Your task to perform on an android device: change the clock display to analog Image 0: 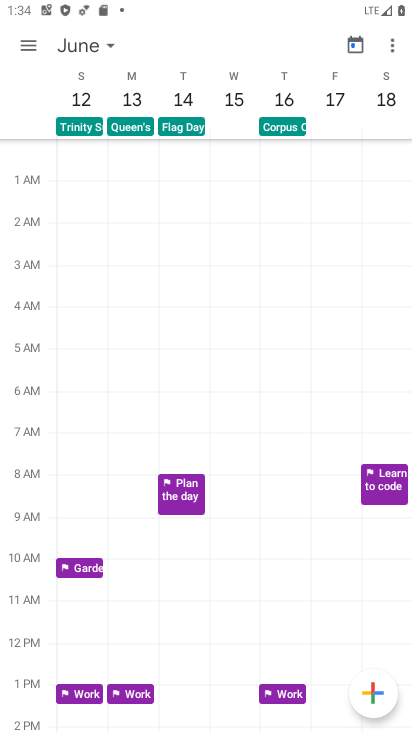
Step 0: press home button
Your task to perform on an android device: change the clock display to analog Image 1: 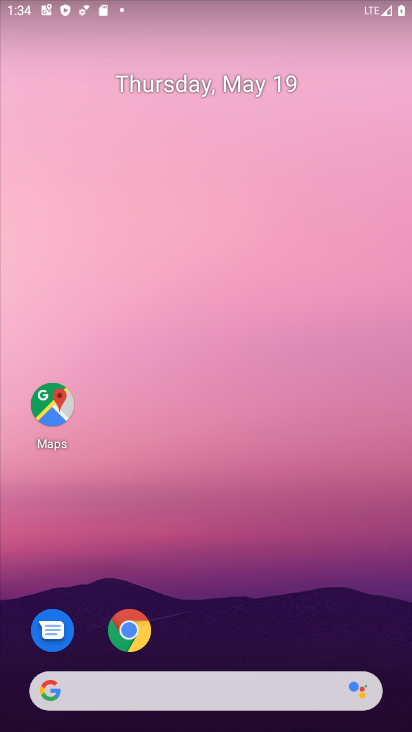
Step 1: drag from (213, 669) to (133, 26)
Your task to perform on an android device: change the clock display to analog Image 2: 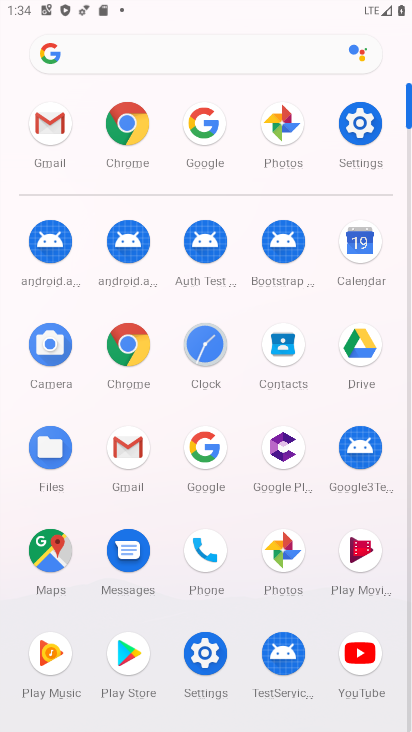
Step 2: click (194, 346)
Your task to perform on an android device: change the clock display to analog Image 3: 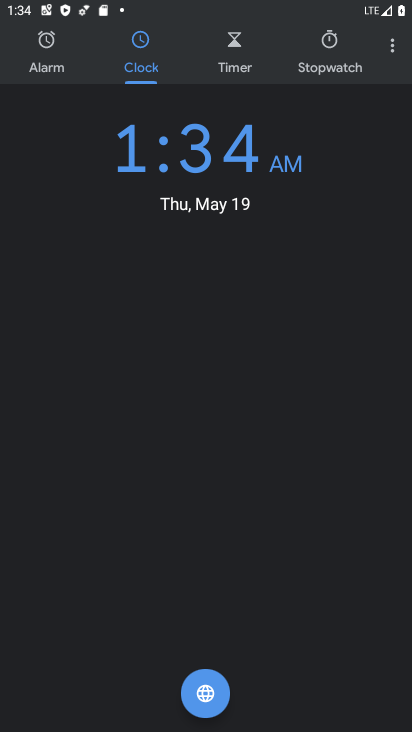
Step 3: click (395, 47)
Your task to perform on an android device: change the clock display to analog Image 4: 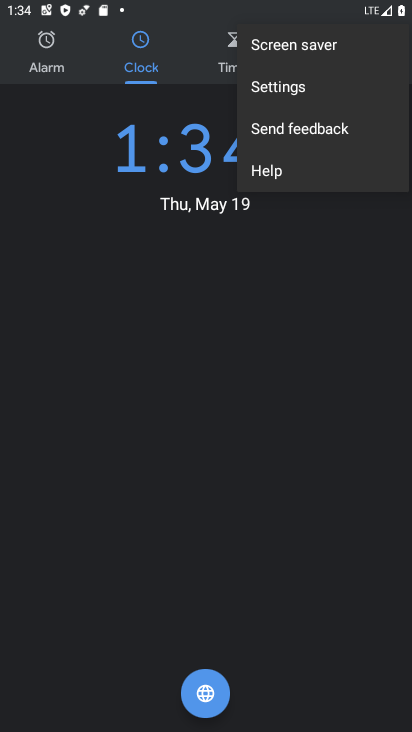
Step 4: click (288, 84)
Your task to perform on an android device: change the clock display to analog Image 5: 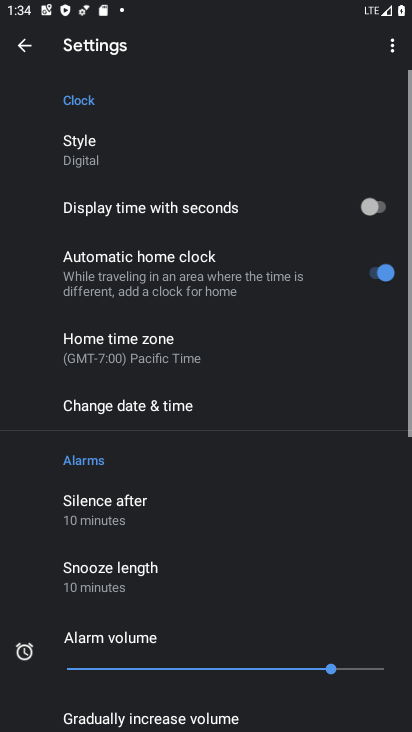
Step 5: click (75, 159)
Your task to perform on an android device: change the clock display to analog Image 6: 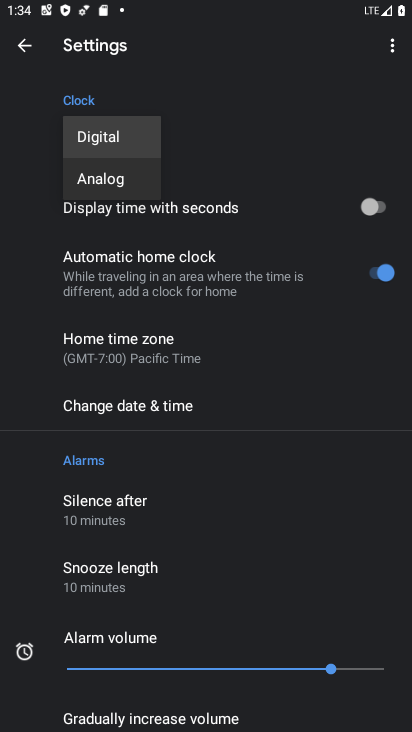
Step 6: click (115, 175)
Your task to perform on an android device: change the clock display to analog Image 7: 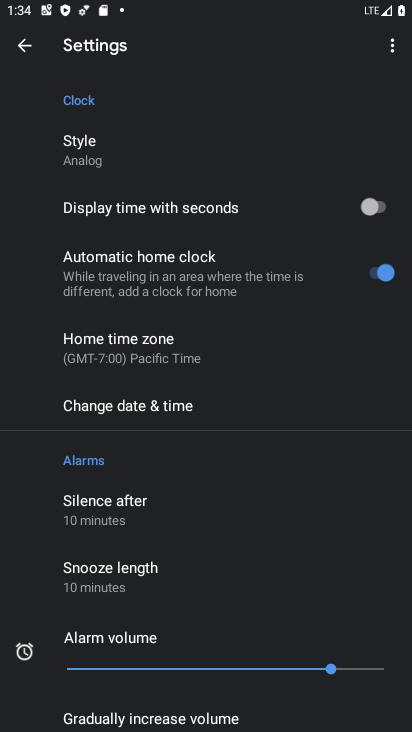
Step 7: task complete